Your task to perform on an android device: Open Reddit.com Image 0: 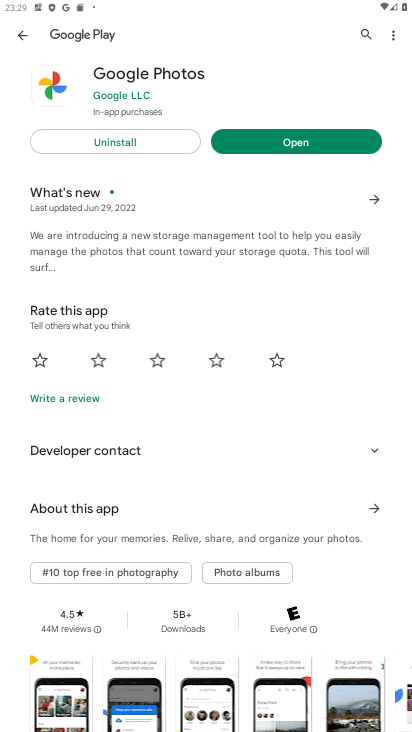
Step 0: press home button
Your task to perform on an android device: Open Reddit.com Image 1: 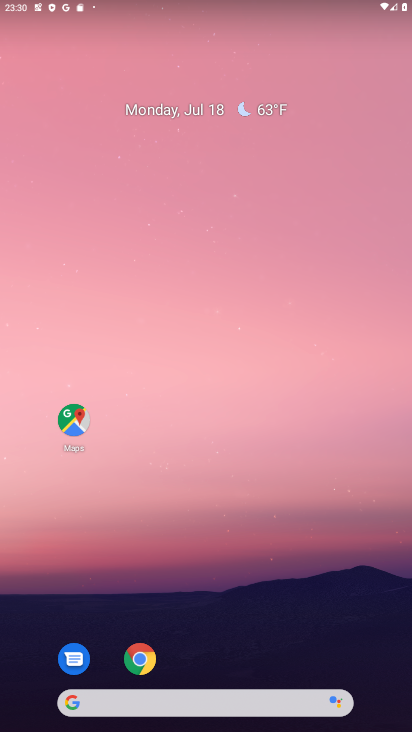
Step 1: click (137, 660)
Your task to perform on an android device: Open Reddit.com Image 2: 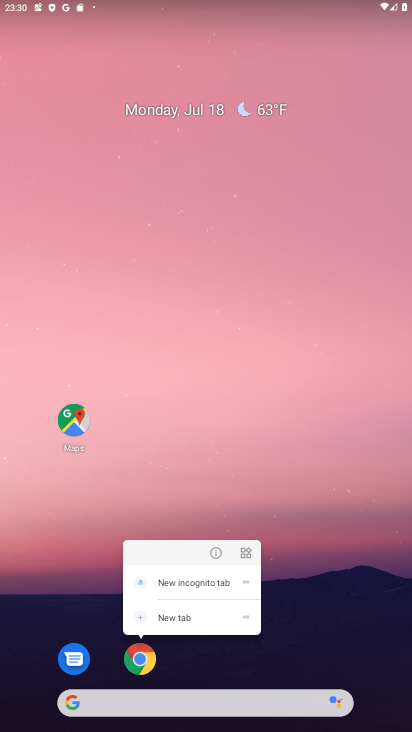
Step 2: click (143, 667)
Your task to perform on an android device: Open Reddit.com Image 3: 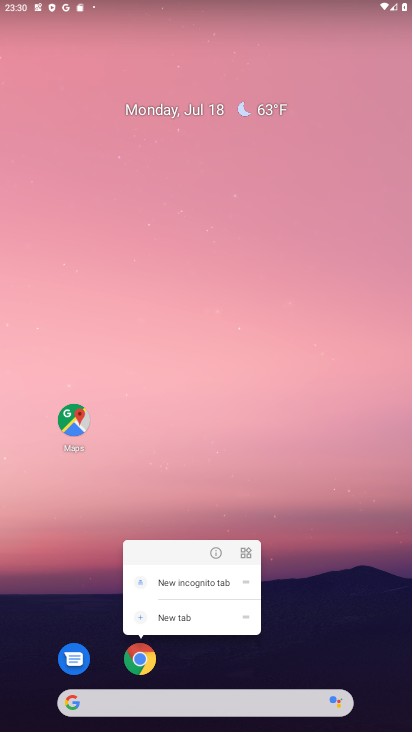
Step 3: click (143, 667)
Your task to perform on an android device: Open Reddit.com Image 4: 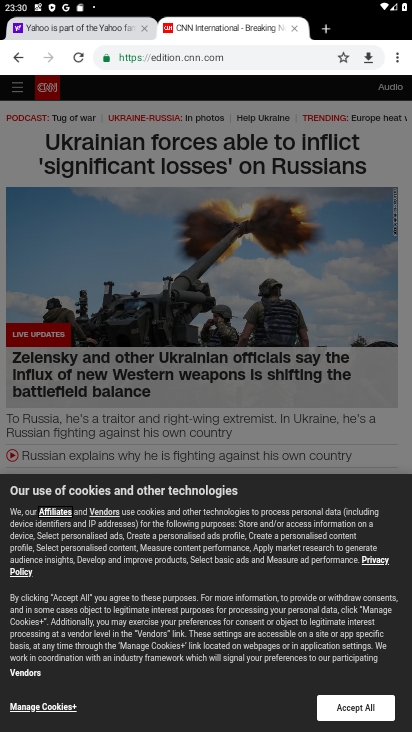
Step 4: click (177, 61)
Your task to perform on an android device: Open Reddit.com Image 5: 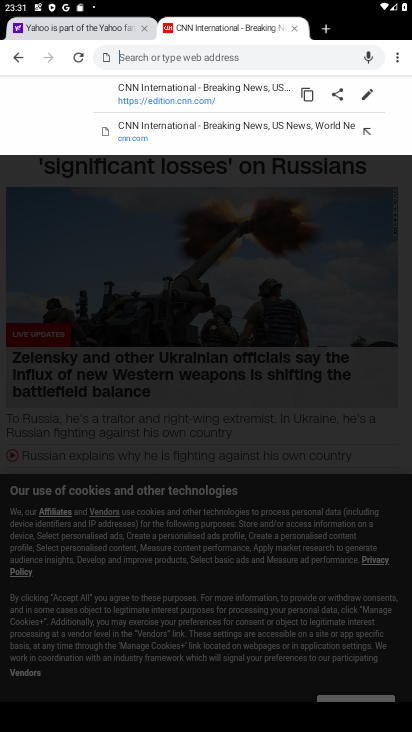
Step 5: type "Reddit.com"
Your task to perform on an android device: Open Reddit.com Image 6: 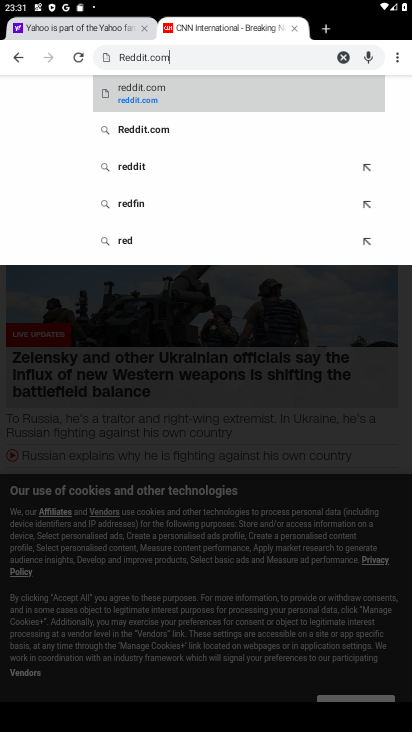
Step 6: type ""
Your task to perform on an android device: Open Reddit.com Image 7: 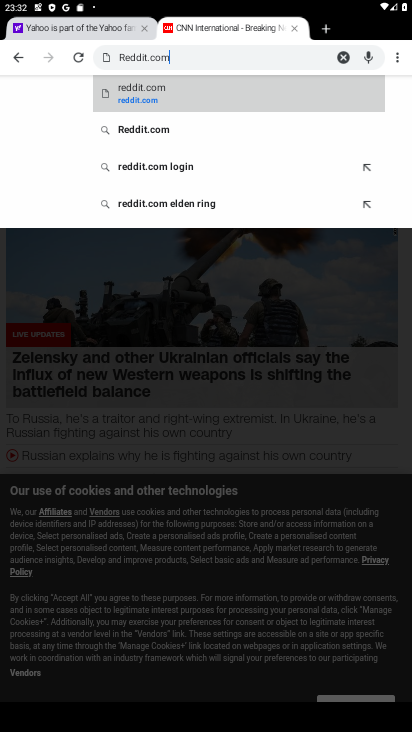
Step 7: click (139, 90)
Your task to perform on an android device: Open Reddit.com Image 8: 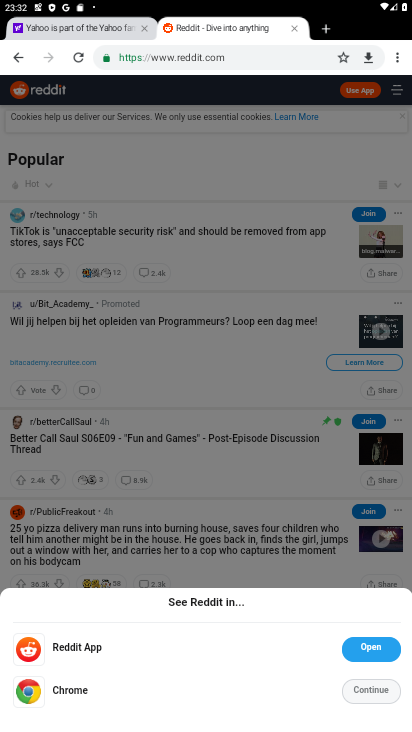
Step 8: task complete